Your task to perform on an android device: toggle sleep mode Image 0: 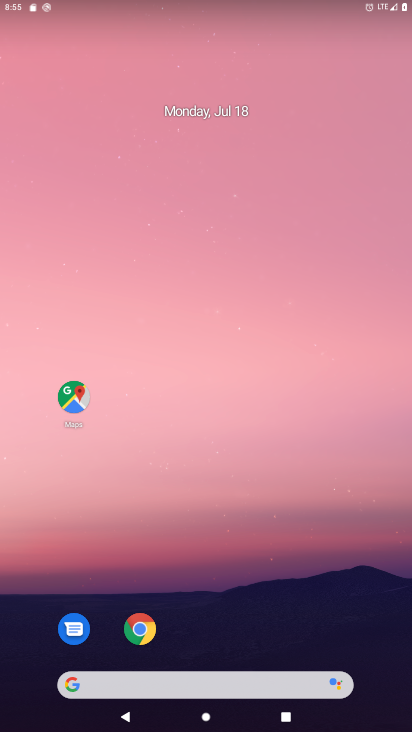
Step 0: drag from (212, 584) to (244, 47)
Your task to perform on an android device: toggle sleep mode Image 1: 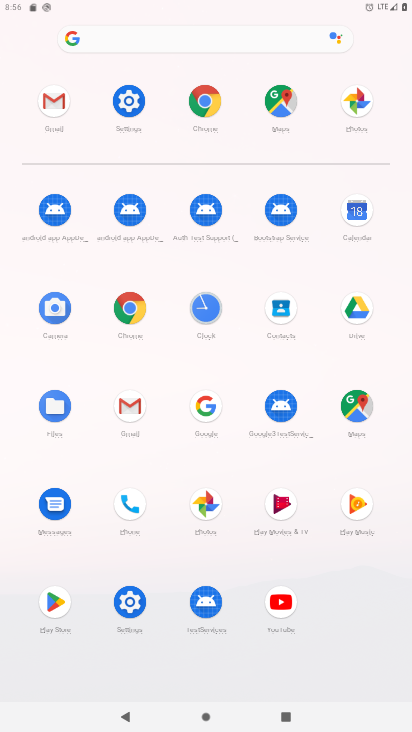
Step 1: click (133, 181)
Your task to perform on an android device: toggle sleep mode Image 2: 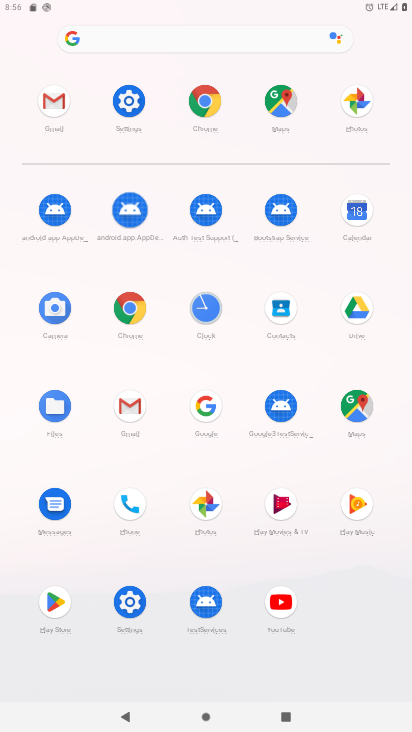
Step 2: click (133, 122)
Your task to perform on an android device: toggle sleep mode Image 3: 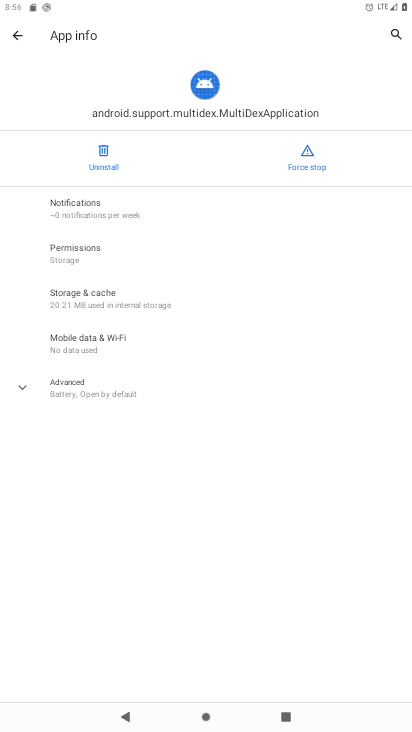
Step 3: press home button
Your task to perform on an android device: toggle sleep mode Image 4: 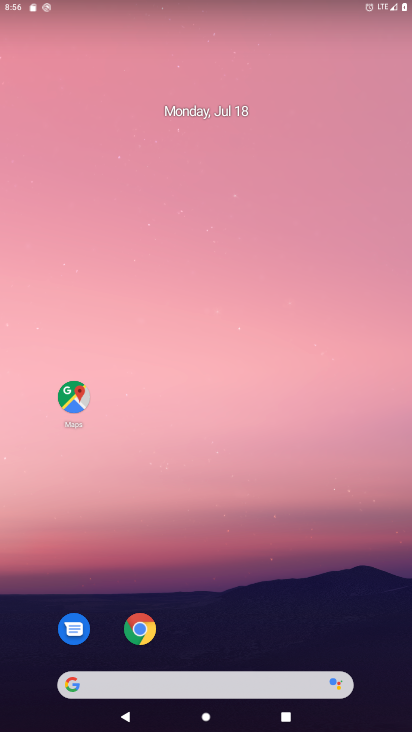
Step 4: drag from (232, 610) to (134, 6)
Your task to perform on an android device: toggle sleep mode Image 5: 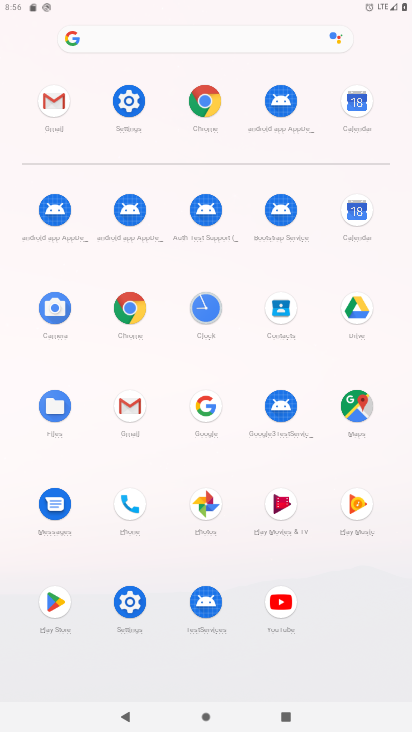
Step 5: click (128, 162)
Your task to perform on an android device: toggle sleep mode Image 6: 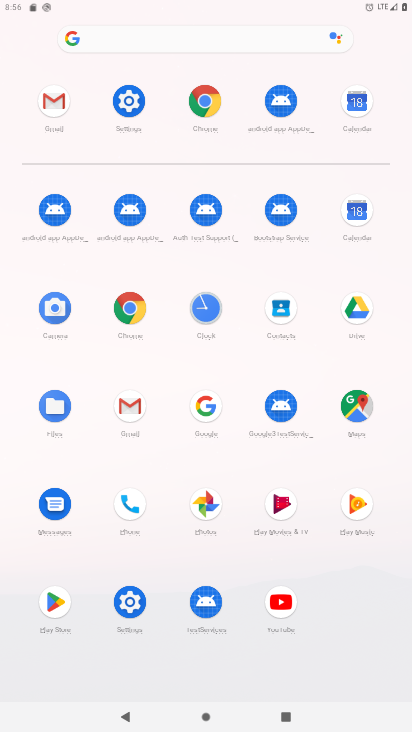
Step 6: click (134, 85)
Your task to perform on an android device: toggle sleep mode Image 7: 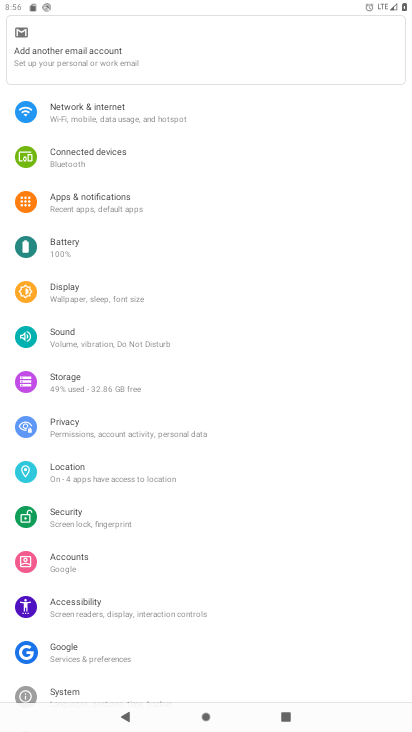
Step 7: drag from (142, 89) to (136, 566)
Your task to perform on an android device: toggle sleep mode Image 8: 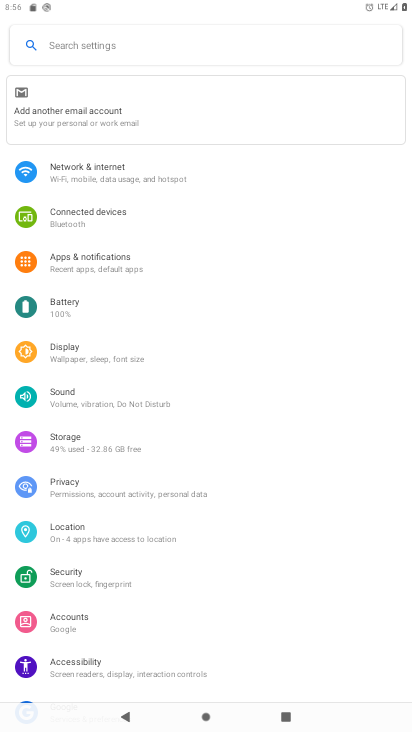
Step 8: click (161, 38)
Your task to perform on an android device: toggle sleep mode Image 9: 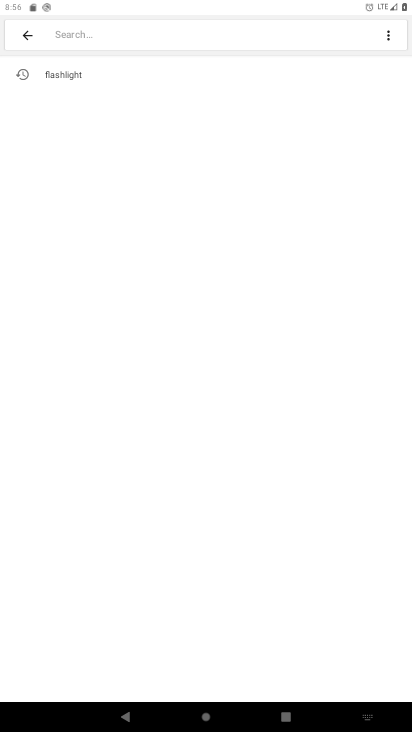
Step 9: type "sleep mode"
Your task to perform on an android device: toggle sleep mode Image 10: 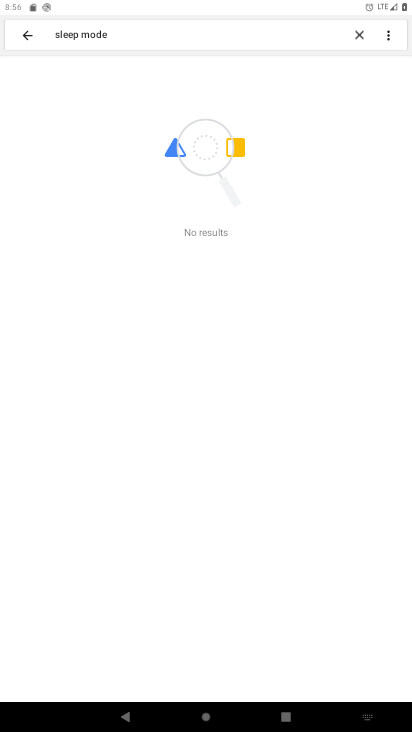
Step 10: task complete